Your task to perform on an android device: Open settings Image 0: 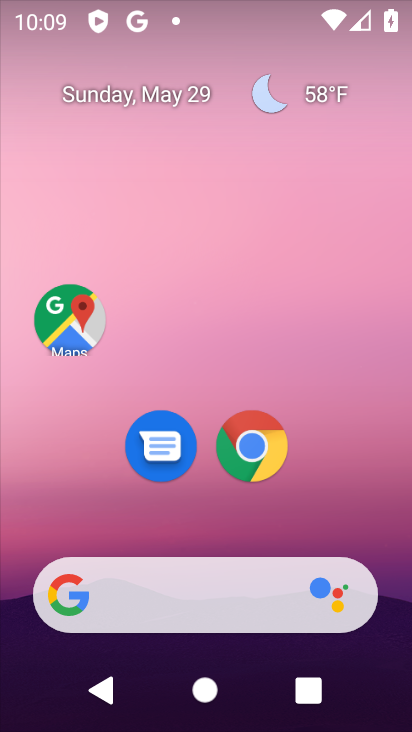
Step 0: drag from (399, 491) to (206, 2)
Your task to perform on an android device: Open settings Image 1: 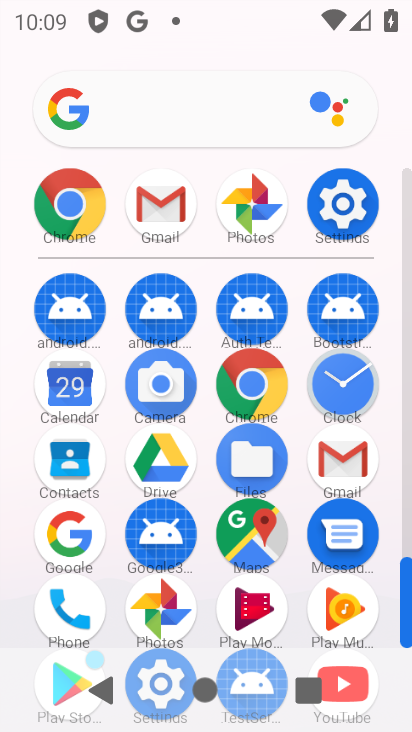
Step 1: drag from (2, 595) to (10, 218)
Your task to perform on an android device: Open settings Image 2: 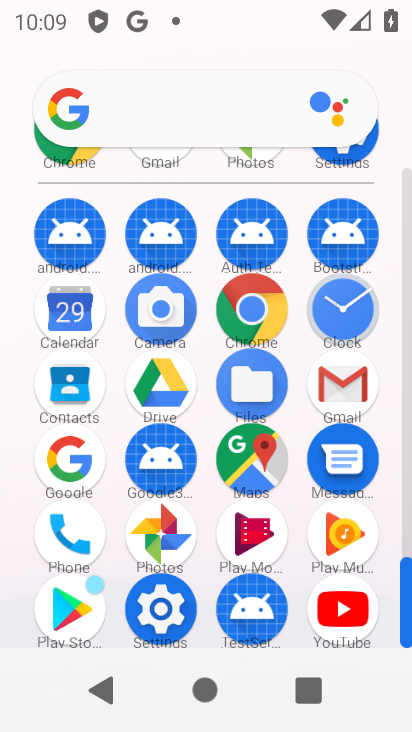
Step 2: click (164, 608)
Your task to perform on an android device: Open settings Image 3: 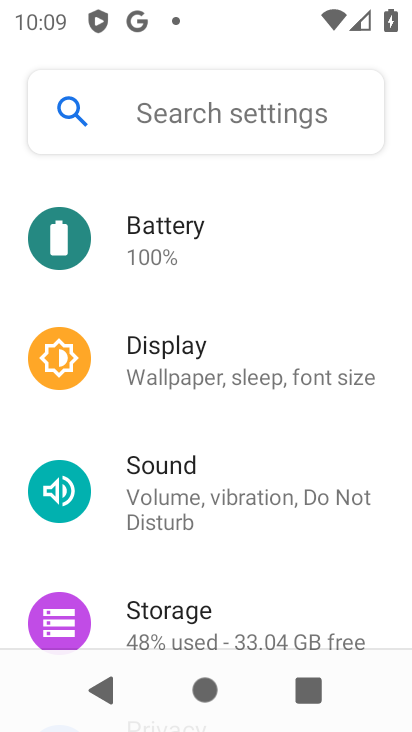
Step 3: task complete